Your task to perform on an android device: turn off wifi Image 0: 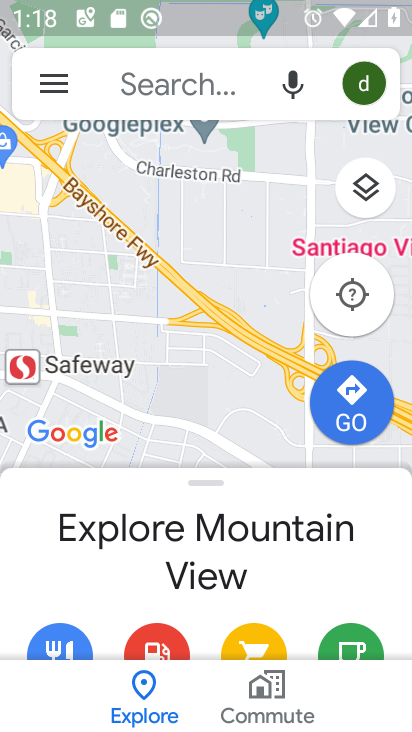
Step 0: press home button
Your task to perform on an android device: turn off wifi Image 1: 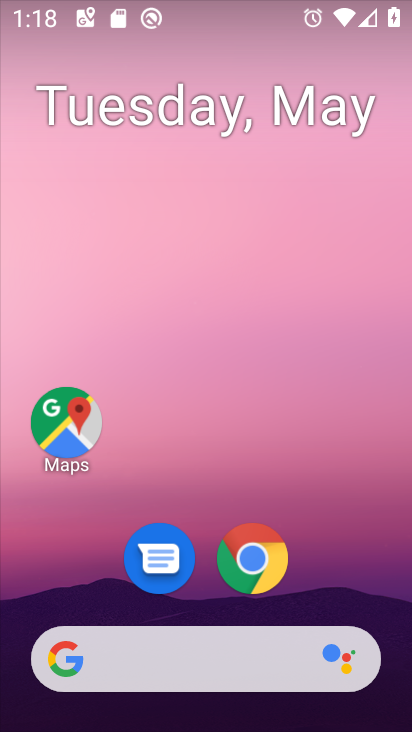
Step 1: drag from (374, 593) to (281, 206)
Your task to perform on an android device: turn off wifi Image 2: 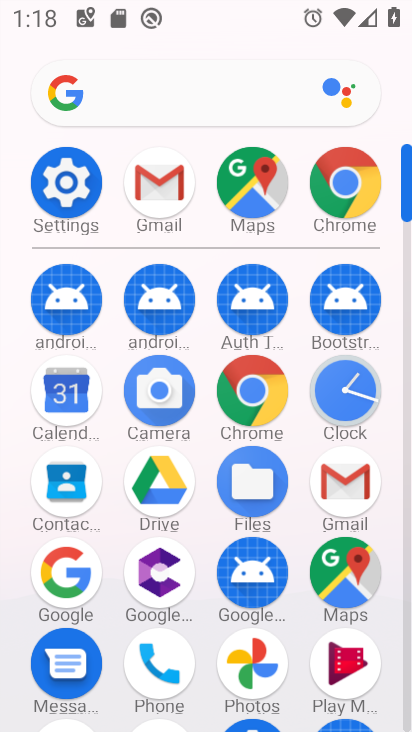
Step 2: click (61, 188)
Your task to perform on an android device: turn off wifi Image 3: 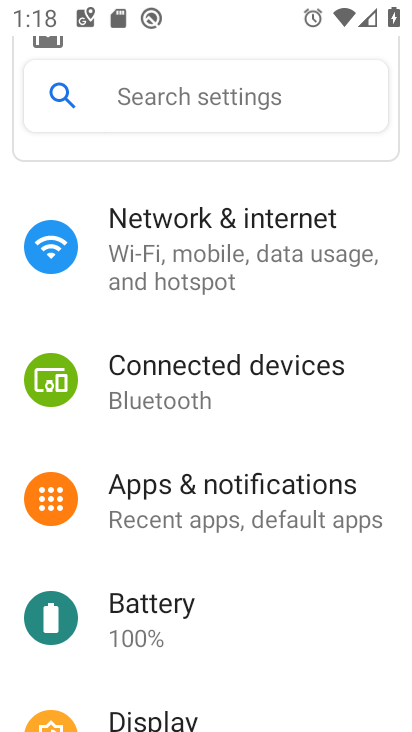
Step 3: click (281, 223)
Your task to perform on an android device: turn off wifi Image 4: 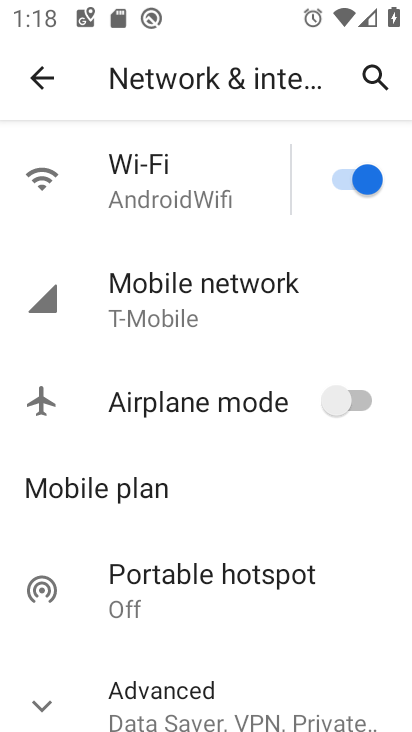
Step 4: click (356, 186)
Your task to perform on an android device: turn off wifi Image 5: 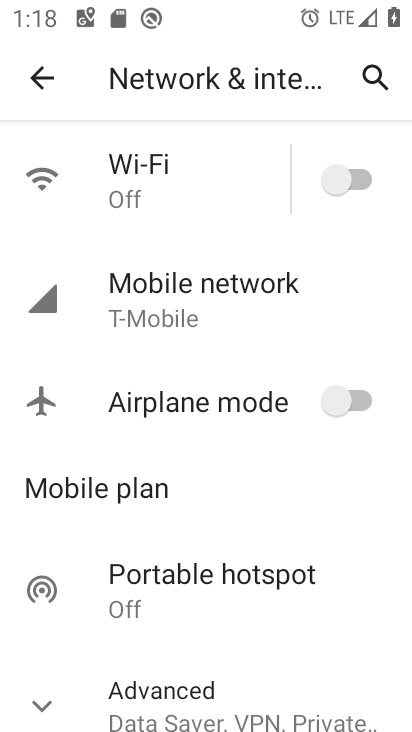
Step 5: task complete